Your task to perform on an android device: turn off improve location accuracy Image 0: 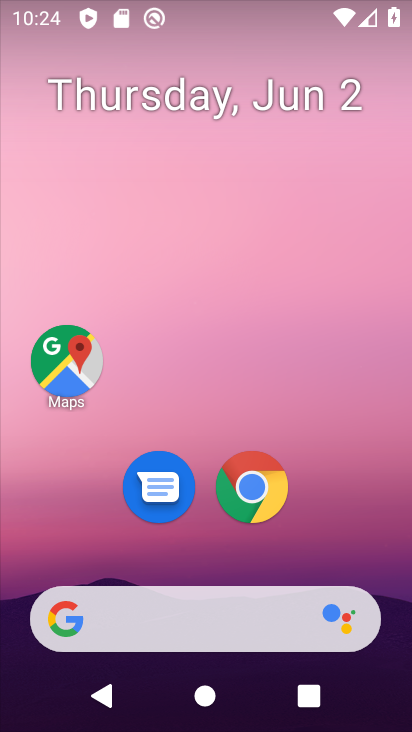
Step 0: press home button
Your task to perform on an android device: turn off improve location accuracy Image 1: 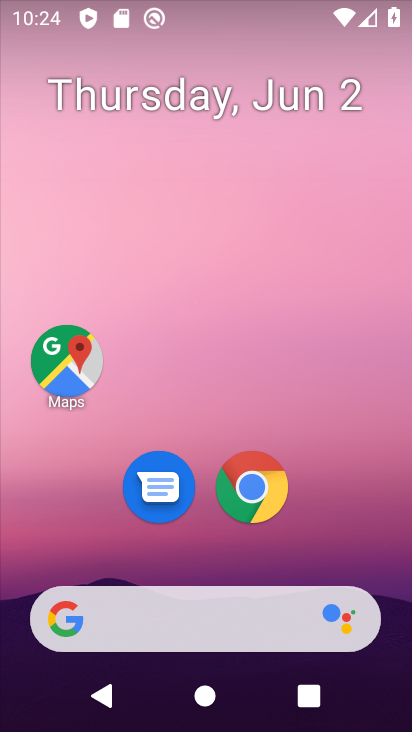
Step 1: drag from (247, 663) to (404, 141)
Your task to perform on an android device: turn off improve location accuracy Image 2: 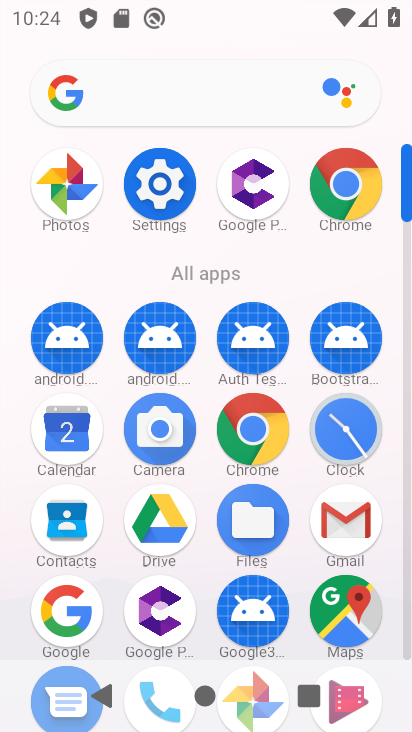
Step 2: drag from (160, 191) to (346, 517)
Your task to perform on an android device: turn off improve location accuracy Image 3: 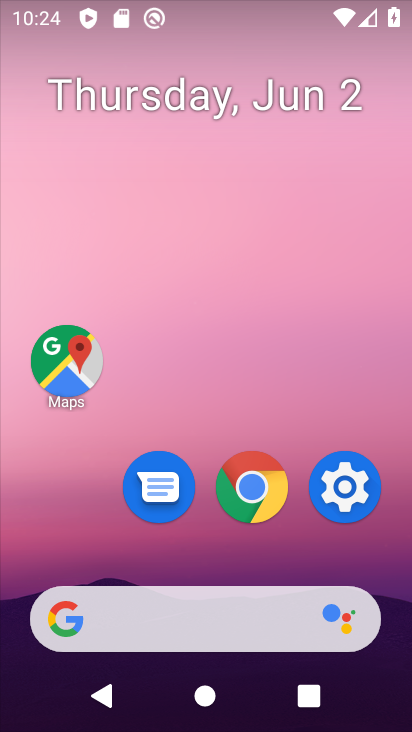
Step 3: click (349, 473)
Your task to perform on an android device: turn off improve location accuracy Image 4: 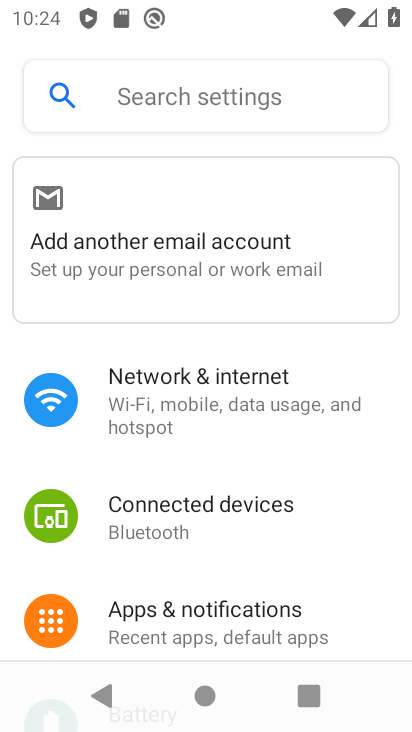
Step 4: click (145, 90)
Your task to perform on an android device: turn off improve location accuracy Image 5: 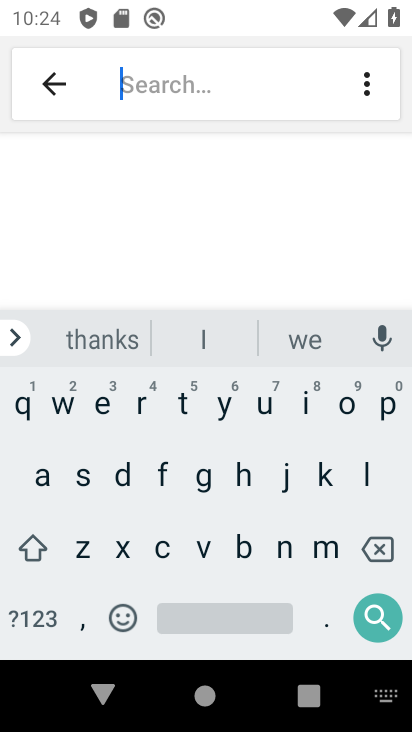
Step 5: click (368, 469)
Your task to perform on an android device: turn off improve location accuracy Image 6: 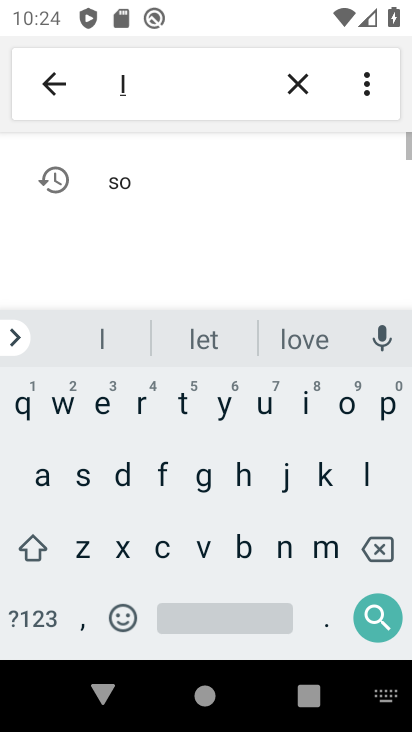
Step 6: click (351, 401)
Your task to perform on an android device: turn off improve location accuracy Image 7: 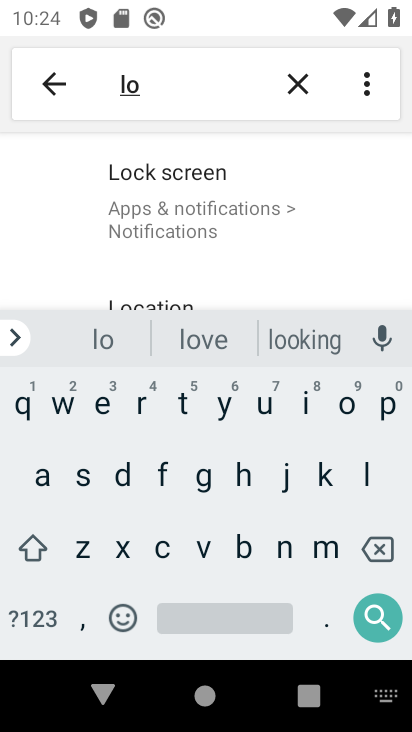
Step 7: click (143, 293)
Your task to perform on an android device: turn off improve location accuracy Image 8: 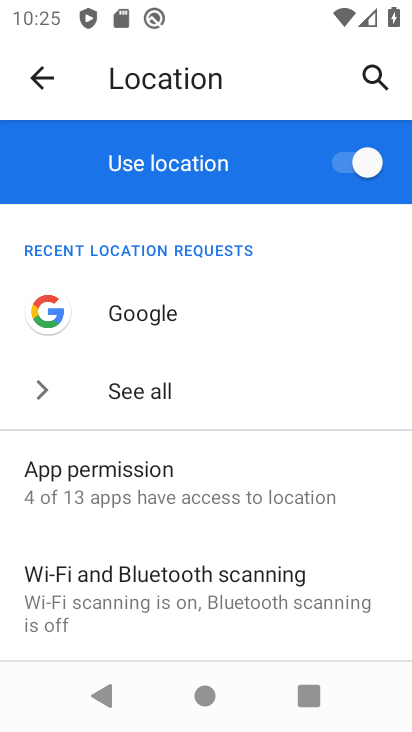
Step 8: drag from (99, 560) to (169, 282)
Your task to perform on an android device: turn off improve location accuracy Image 9: 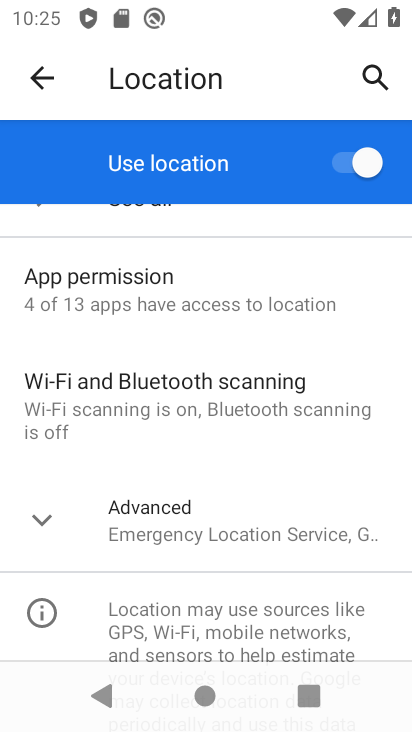
Step 9: click (38, 525)
Your task to perform on an android device: turn off improve location accuracy Image 10: 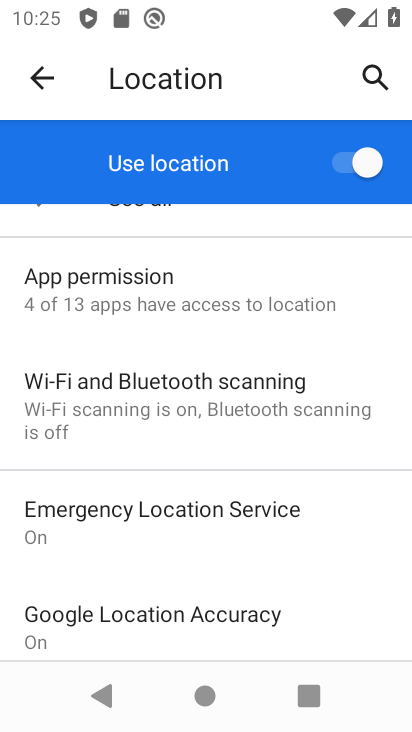
Step 10: click (136, 609)
Your task to perform on an android device: turn off improve location accuracy Image 11: 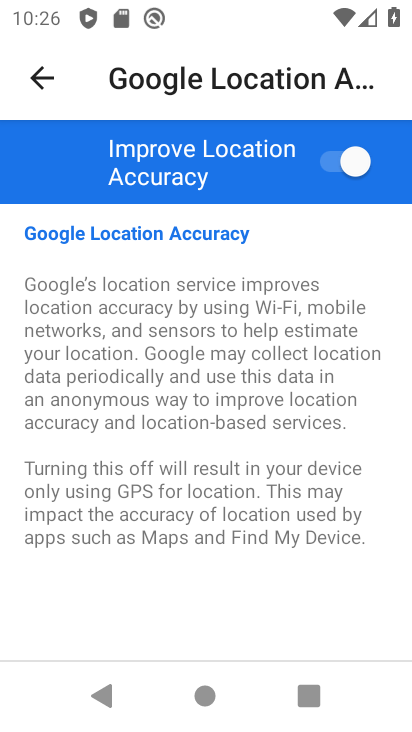
Step 11: click (345, 153)
Your task to perform on an android device: turn off improve location accuracy Image 12: 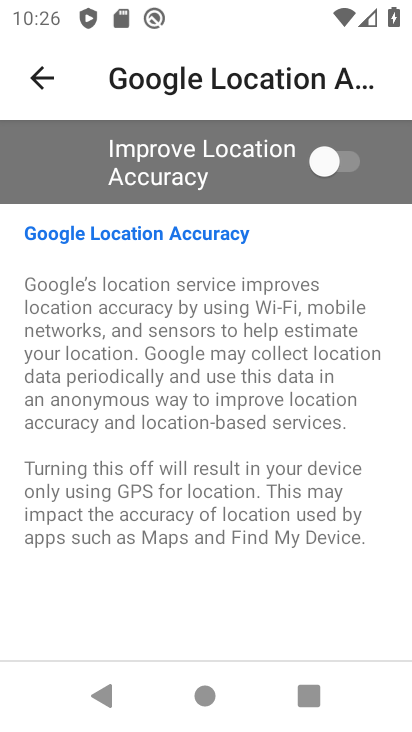
Step 12: task complete